Your task to perform on an android device: Search for Italian restaurants on Maps Image 0: 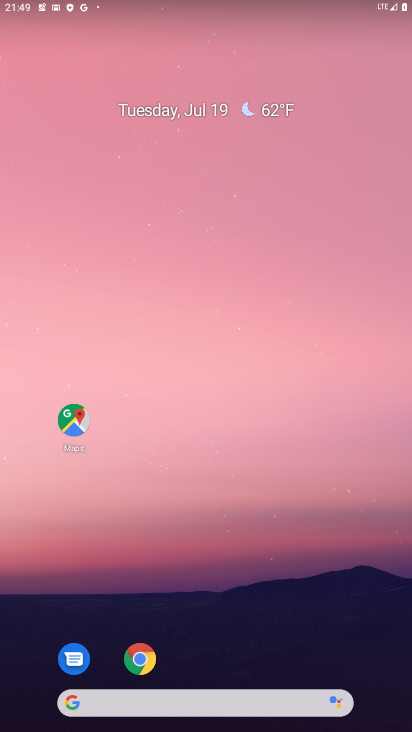
Step 0: drag from (264, 643) to (297, 67)
Your task to perform on an android device: Search for Italian restaurants on Maps Image 1: 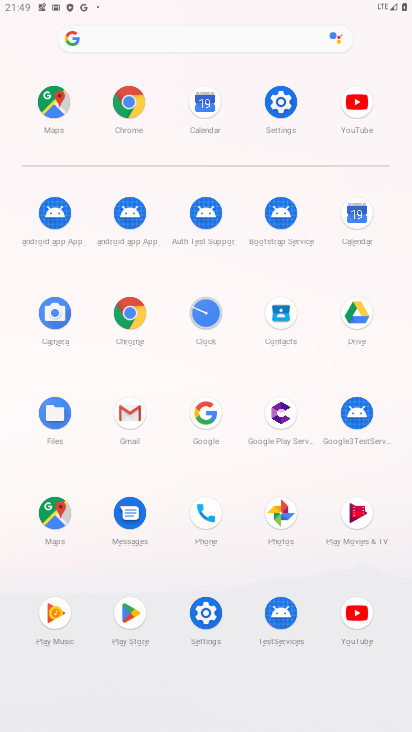
Step 1: click (38, 517)
Your task to perform on an android device: Search for Italian restaurants on Maps Image 2: 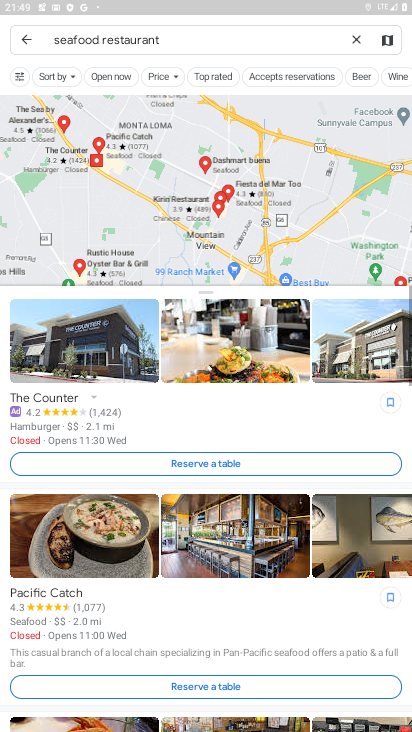
Step 2: click (356, 41)
Your task to perform on an android device: Search for Italian restaurants on Maps Image 3: 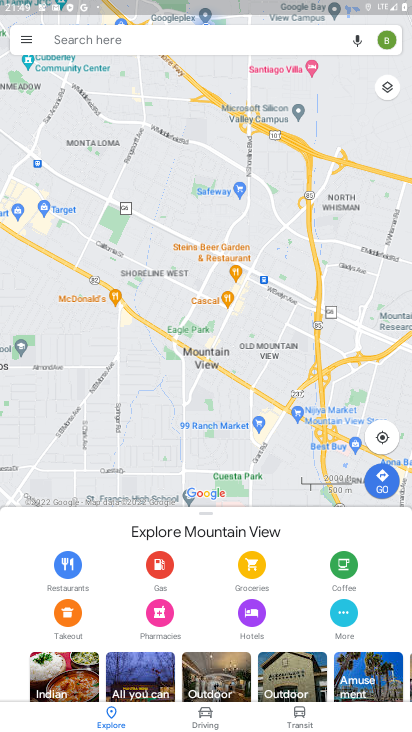
Step 3: click (142, 33)
Your task to perform on an android device: Search for Italian restaurants on Maps Image 4: 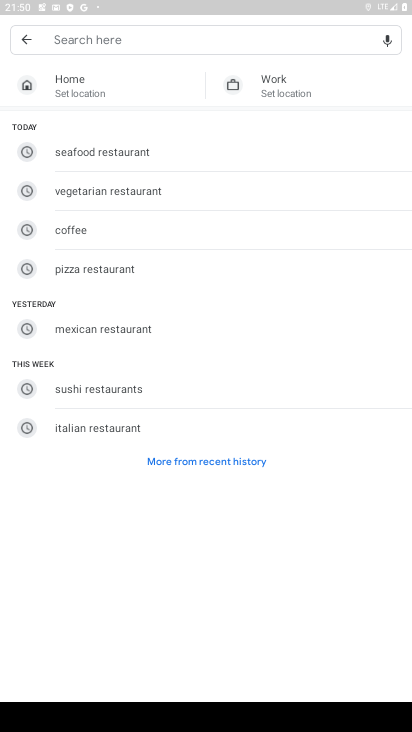
Step 4: type "Italian restaurants"
Your task to perform on an android device: Search for Italian restaurants on Maps Image 5: 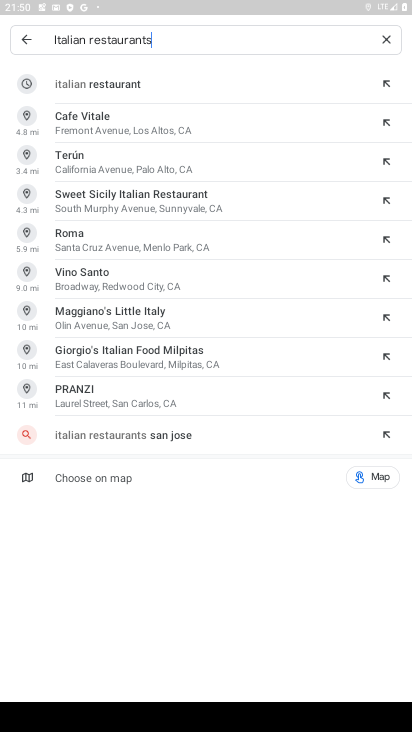
Step 5: click (129, 81)
Your task to perform on an android device: Search for Italian restaurants on Maps Image 6: 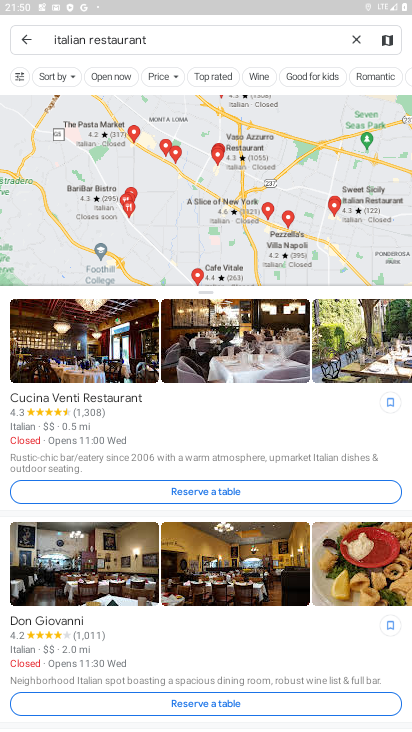
Step 6: task complete